Your task to perform on an android device: find which apps use the phone's location Image 0: 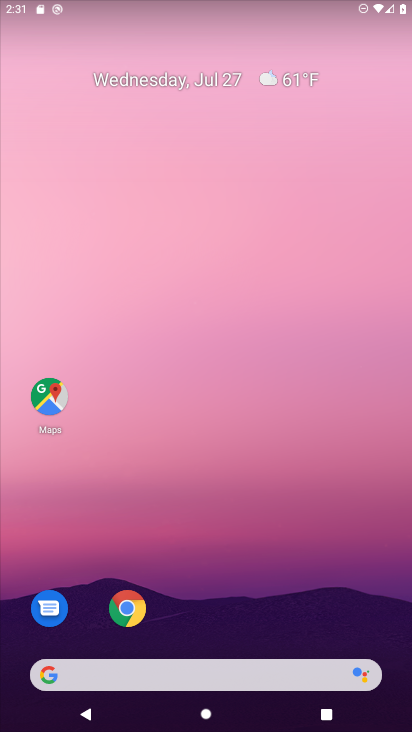
Step 0: drag from (213, 642) to (145, 146)
Your task to perform on an android device: find which apps use the phone's location Image 1: 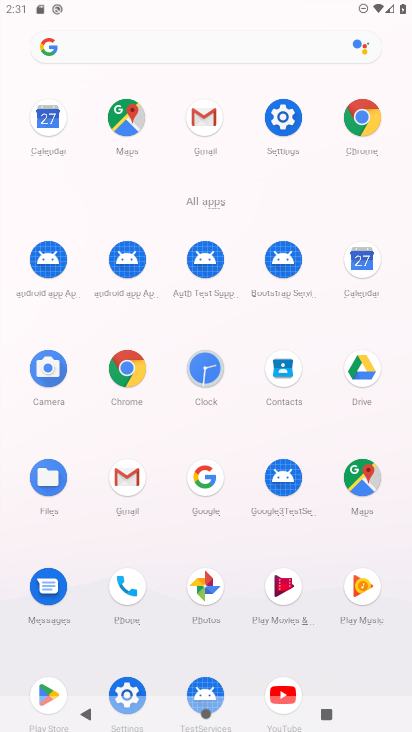
Step 1: click (278, 129)
Your task to perform on an android device: find which apps use the phone's location Image 2: 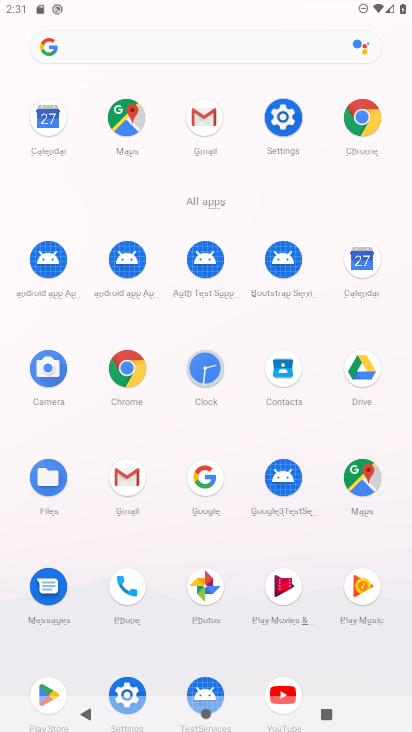
Step 2: click (278, 129)
Your task to perform on an android device: find which apps use the phone's location Image 3: 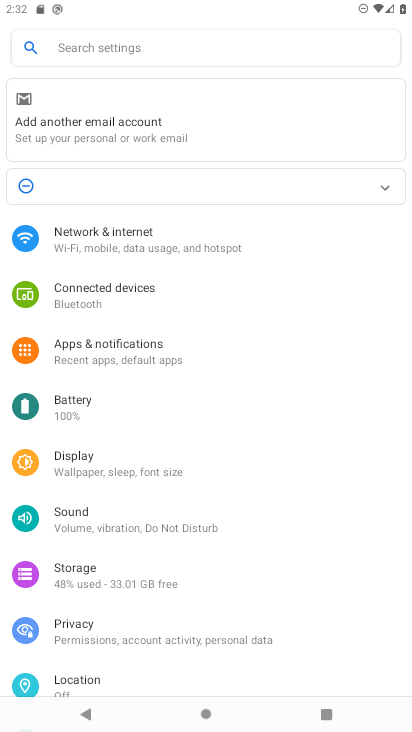
Step 3: click (86, 684)
Your task to perform on an android device: find which apps use the phone's location Image 4: 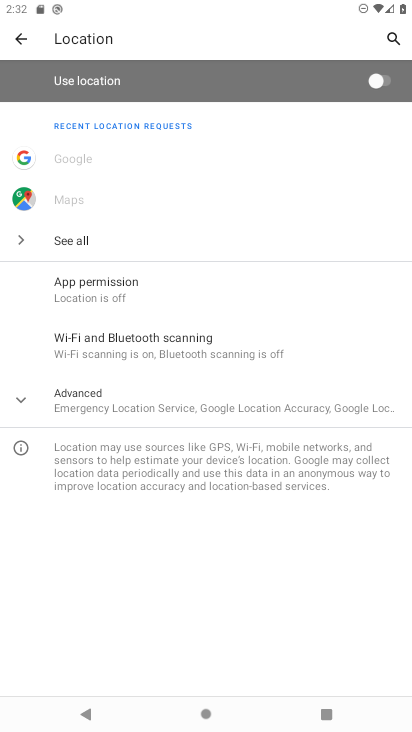
Step 4: click (95, 284)
Your task to perform on an android device: find which apps use the phone's location Image 5: 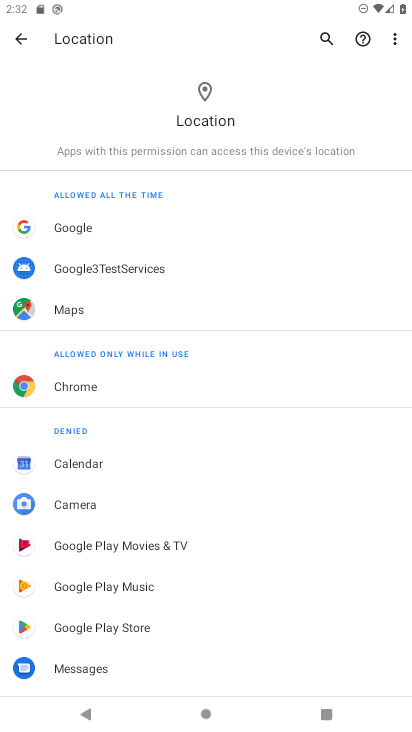
Step 5: click (408, 671)
Your task to perform on an android device: find which apps use the phone's location Image 6: 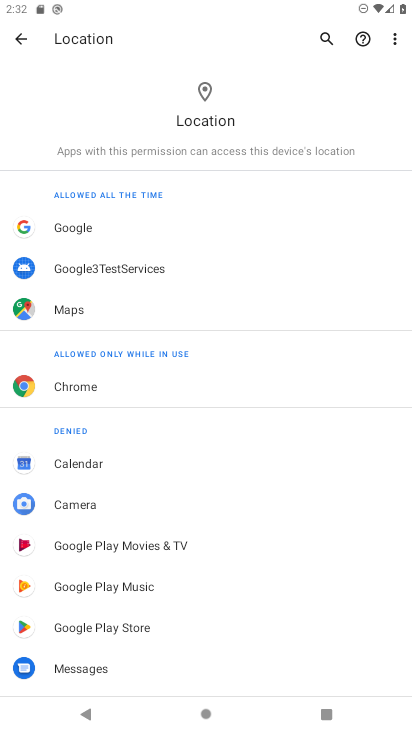
Step 6: task complete